Your task to perform on an android device: check google app version Image 0: 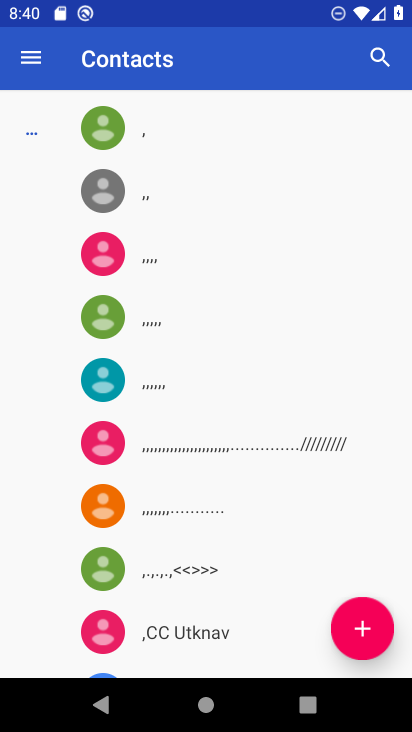
Step 0: press home button
Your task to perform on an android device: check google app version Image 1: 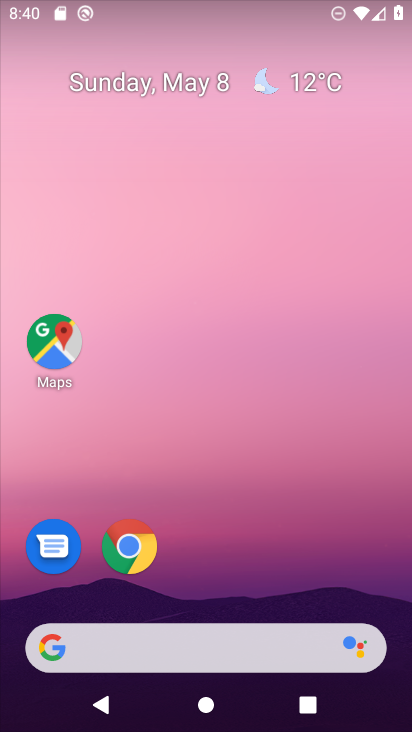
Step 1: click (46, 650)
Your task to perform on an android device: check google app version Image 2: 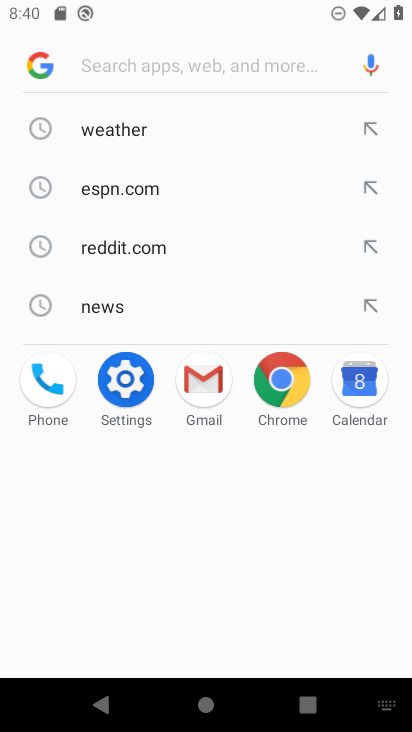
Step 2: click (30, 63)
Your task to perform on an android device: check google app version Image 3: 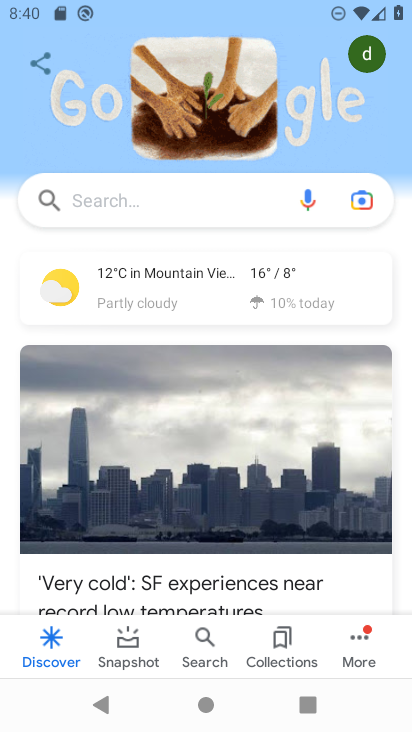
Step 3: click (360, 633)
Your task to perform on an android device: check google app version Image 4: 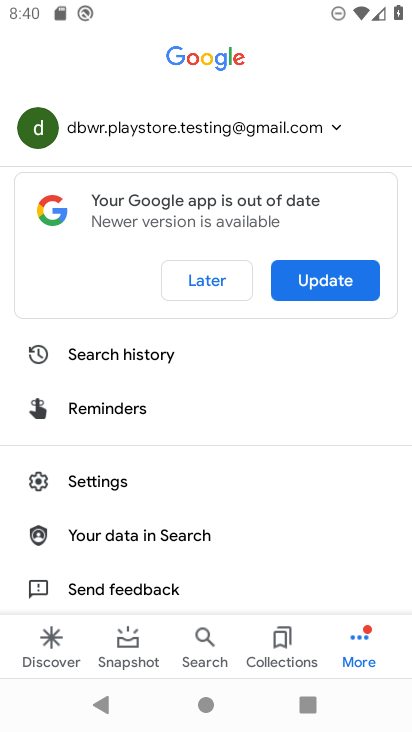
Step 4: click (135, 464)
Your task to perform on an android device: check google app version Image 5: 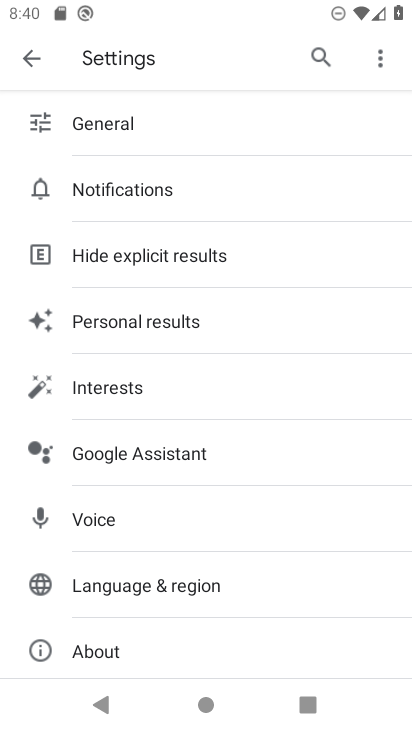
Step 5: click (97, 639)
Your task to perform on an android device: check google app version Image 6: 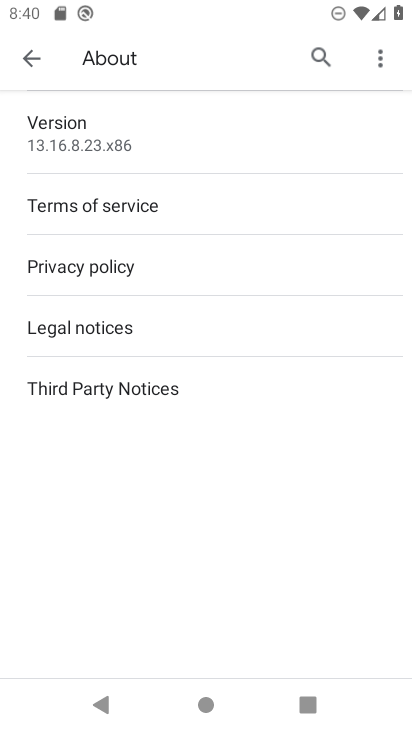
Step 6: task complete